Your task to perform on an android device: clear all cookies in the chrome app Image 0: 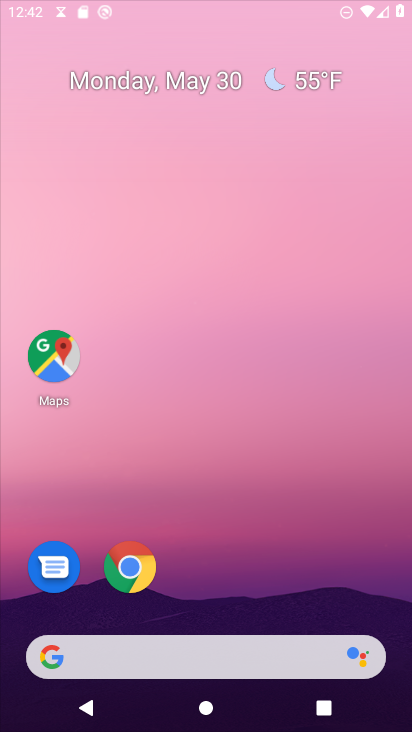
Step 0: press home button
Your task to perform on an android device: clear all cookies in the chrome app Image 1: 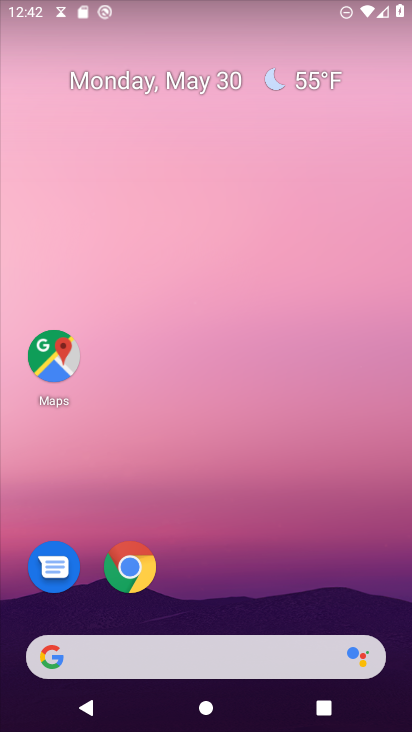
Step 1: click (125, 561)
Your task to perform on an android device: clear all cookies in the chrome app Image 2: 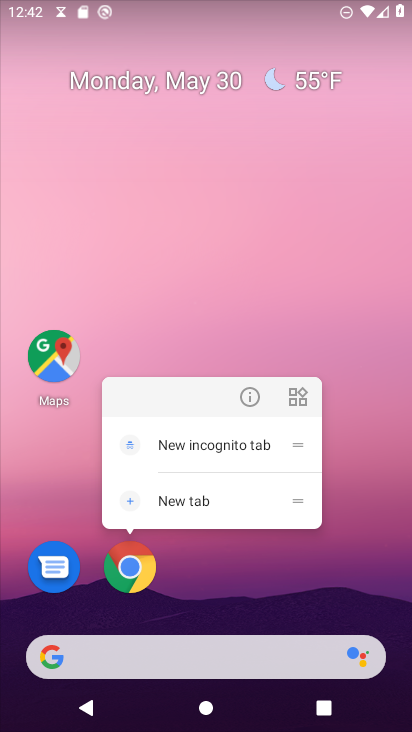
Step 2: click (125, 561)
Your task to perform on an android device: clear all cookies in the chrome app Image 3: 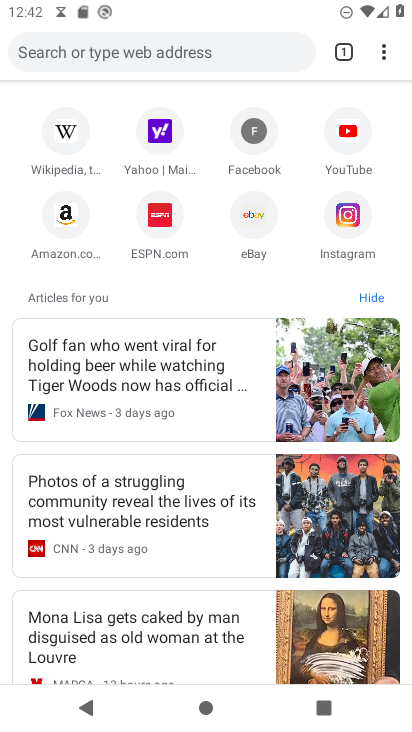
Step 3: click (379, 52)
Your task to perform on an android device: clear all cookies in the chrome app Image 4: 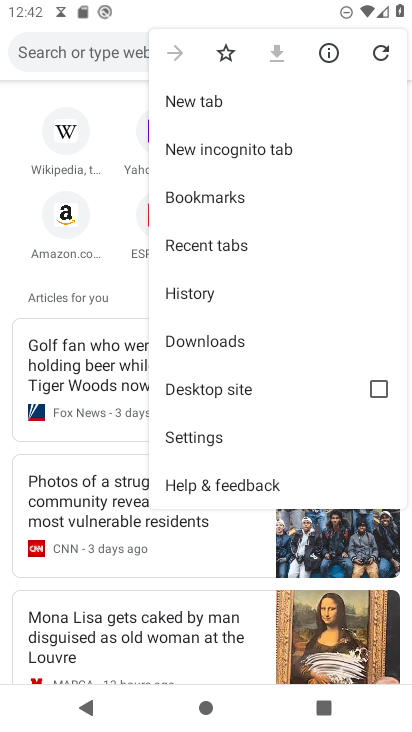
Step 4: click (225, 294)
Your task to perform on an android device: clear all cookies in the chrome app Image 5: 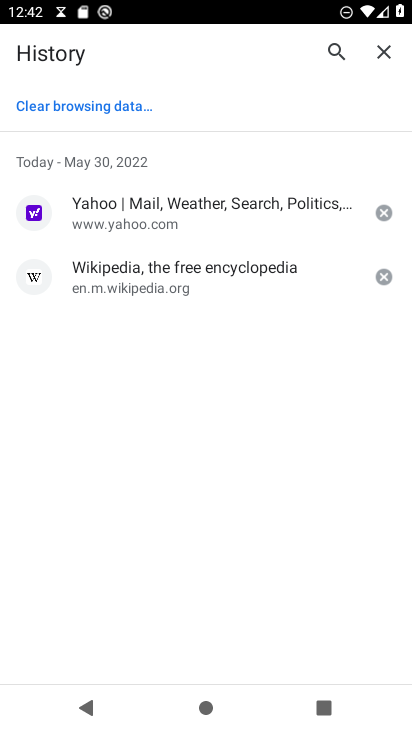
Step 5: click (105, 105)
Your task to perform on an android device: clear all cookies in the chrome app Image 6: 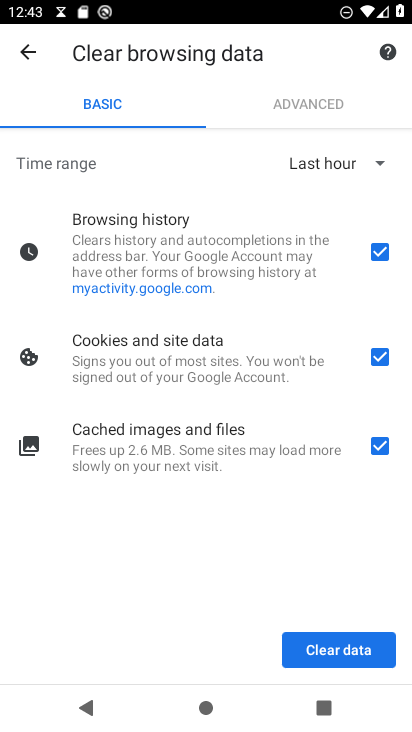
Step 6: click (378, 254)
Your task to perform on an android device: clear all cookies in the chrome app Image 7: 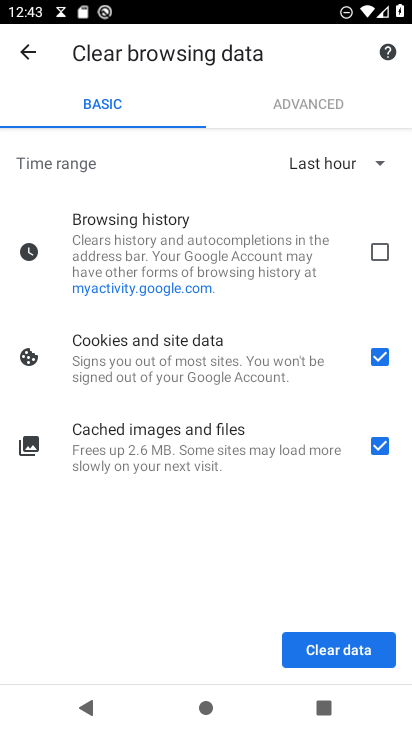
Step 7: click (378, 441)
Your task to perform on an android device: clear all cookies in the chrome app Image 8: 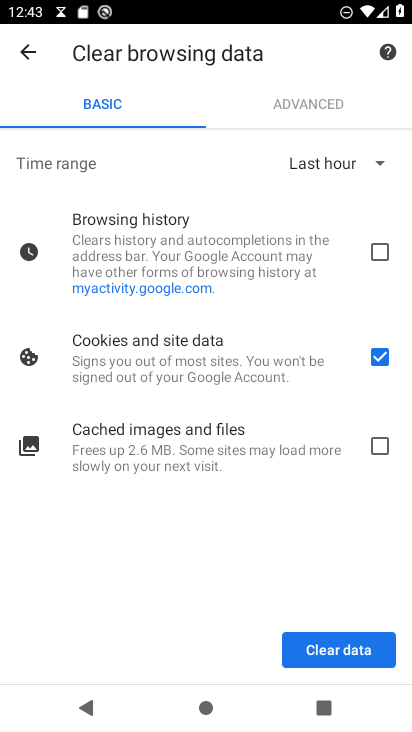
Step 8: click (376, 161)
Your task to perform on an android device: clear all cookies in the chrome app Image 9: 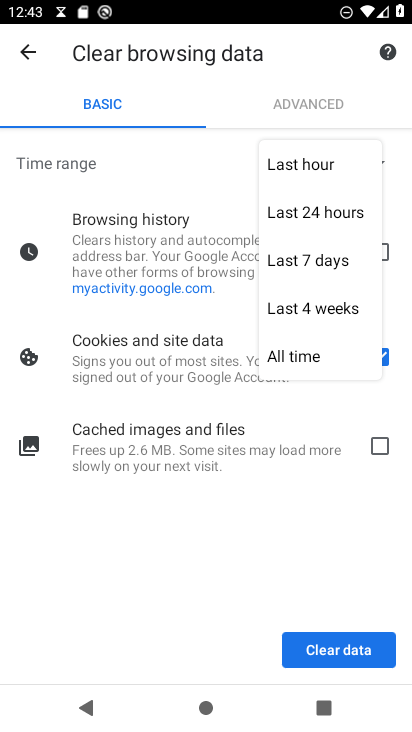
Step 9: click (316, 348)
Your task to perform on an android device: clear all cookies in the chrome app Image 10: 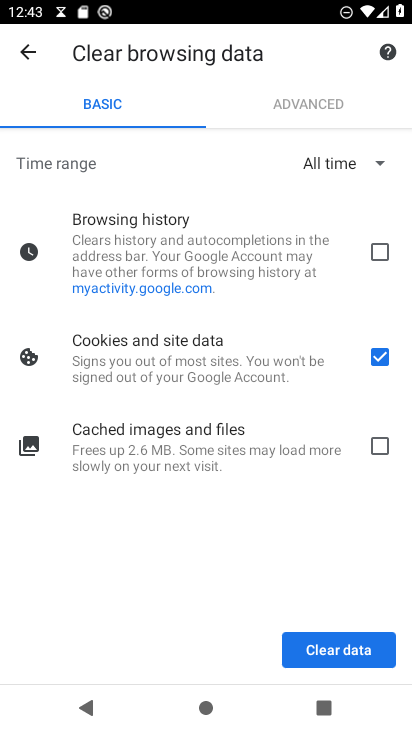
Step 10: click (363, 646)
Your task to perform on an android device: clear all cookies in the chrome app Image 11: 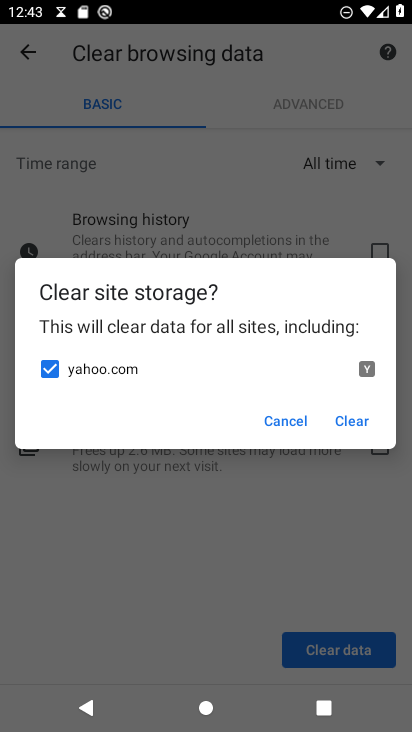
Step 11: click (357, 421)
Your task to perform on an android device: clear all cookies in the chrome app Image 12: 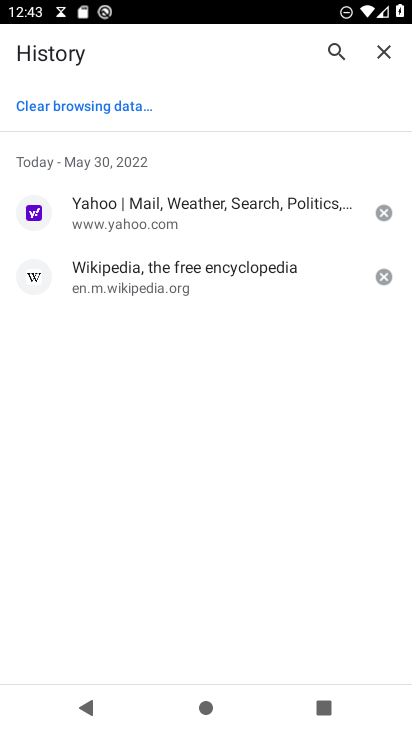
Step 12: task complete